Your task to perform on an android device: Show me the alarms in the clock app Image 0: 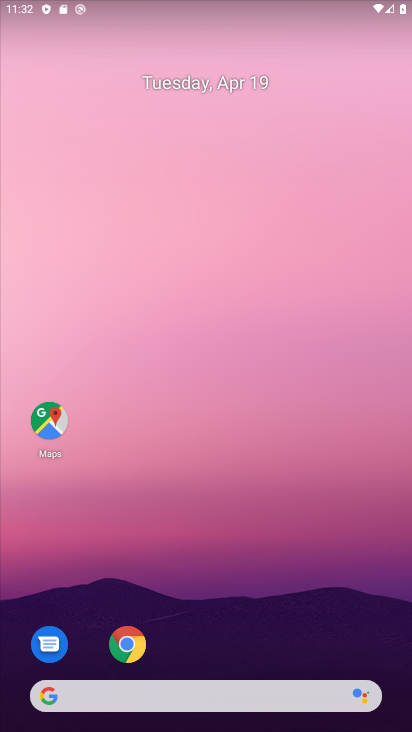
Step 0: drag from (180, 646) to (174, 195)
Your task to perform on an android device: Show me the alarms in the clock app Image 1: 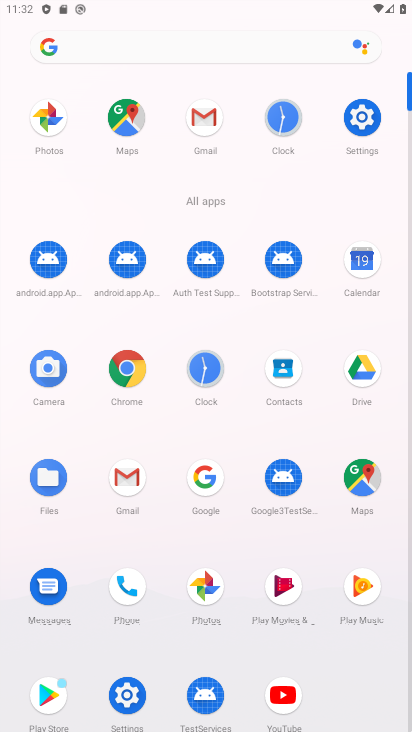
Step 1: click (280, 124)
Your task to perform on an android device: Show me the alarms in the clock app Image 2: 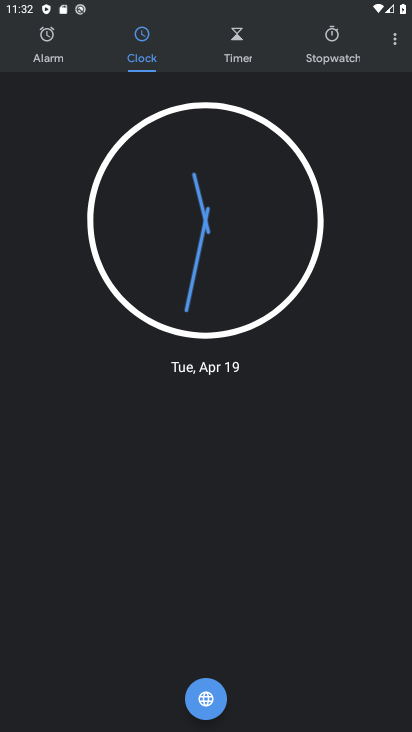
Step 2: click (397, 45)
Your task to perform on an android device: Show me the alarms in the clock app Image 3: 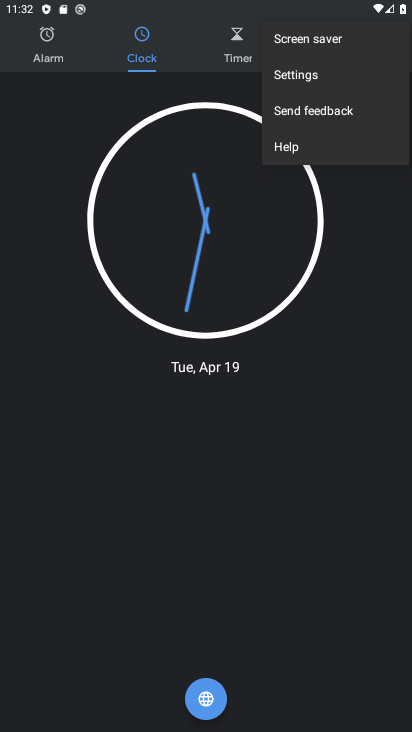
Step 3: click (331, 82)
Your task to perform on an android device: Show me the alarms in the clock app Image 4: 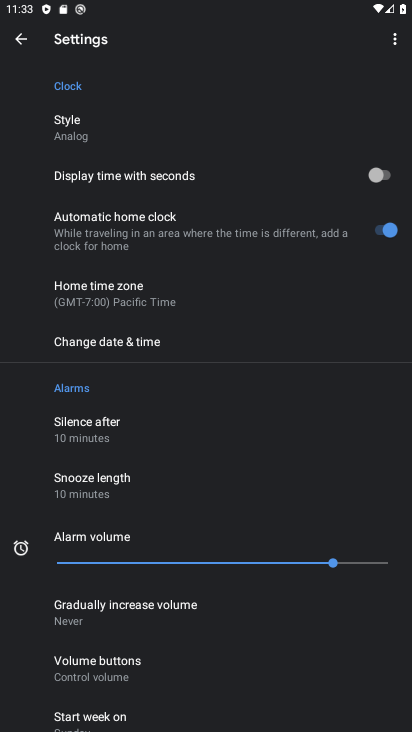
Step 4: click (9, 39)
Your task to perform on an android device: Show me the alarms in the clock app Image 5: 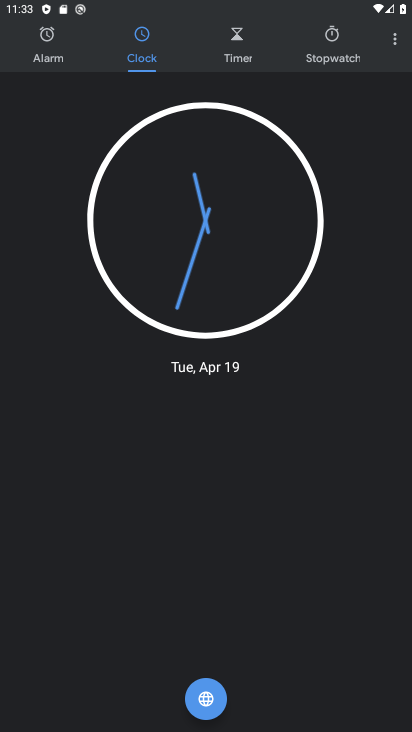
Step 5: click (61, 53)
Your task to perform on an android device: Show me the alarms in the clock app Image 6: 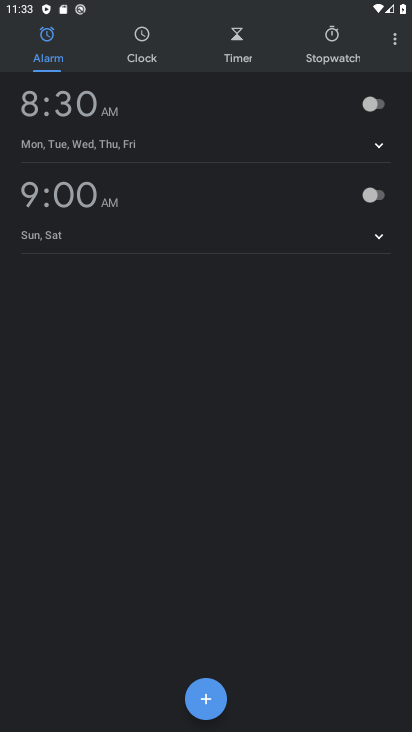
Step 6: click (244, 115)
Your task to perform on an android device: Show me the alarms in the clock app Image 7: 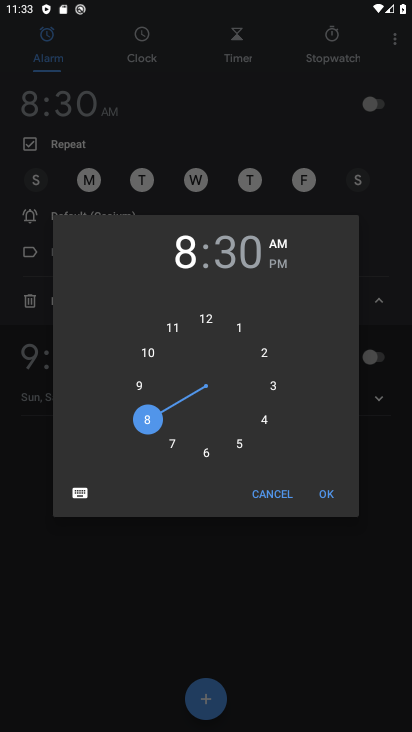
Step 7: task complete